Your task to perform on an android device: What's on my calendar tomorrow? Image 0: 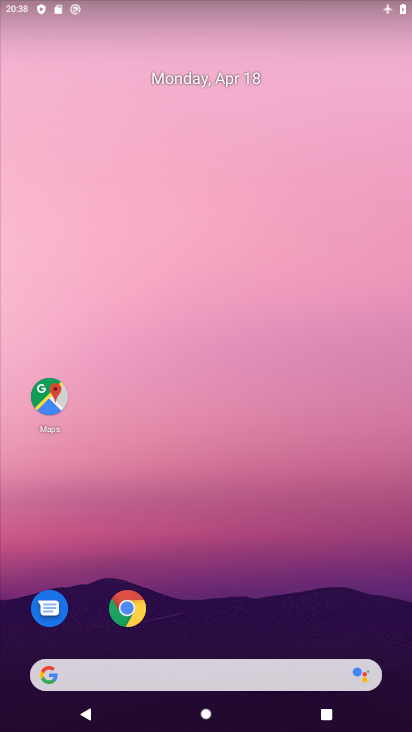
Step 0: drag from (269, 528) to (304, 113)
Your task to perform on an android device: What's on my calendar tomorrow? Image 1: 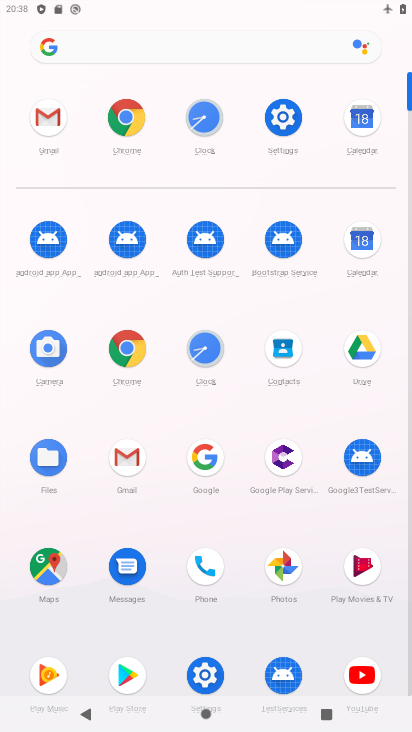
Step 1: click (362, 242)
Your task to perform on an android device: What's on my calendar tomorrow? Image 2: 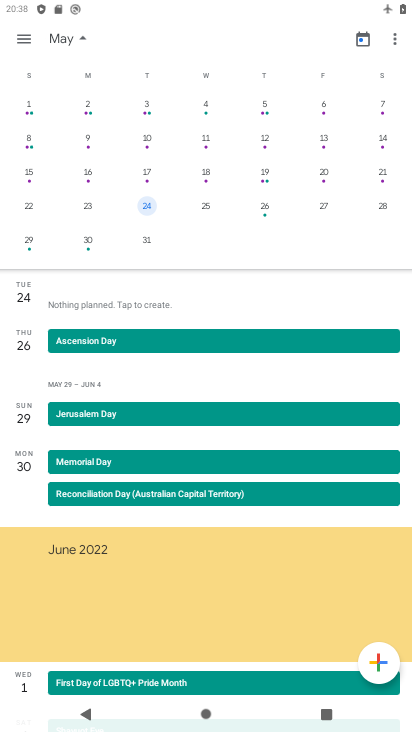
Step 2: click (81, 37)
Your task to perform on an android device: What's on my calendar tomorrow? Image 3: 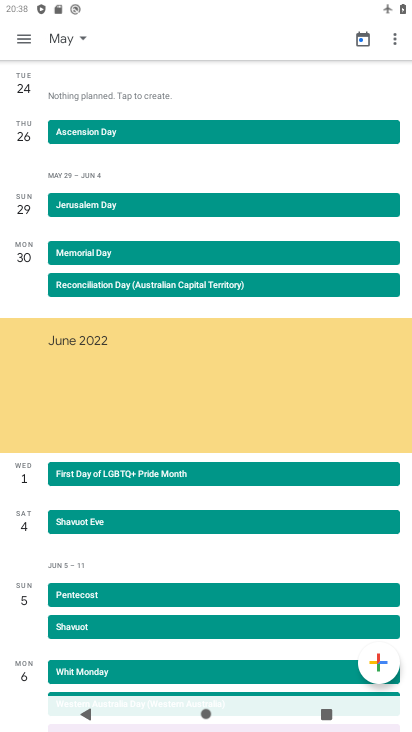
Step 3: click (79, 40)
Your task to perform on an android device: What's on my calendar tomorrow? Image 4: 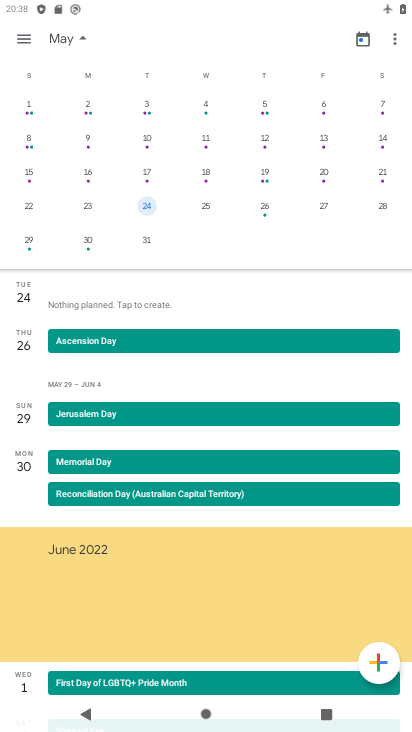
Step 4: drag from (51, 222) to (388, 201)
Your task to perform on an android device: What's on my calendar tomorrow? Image 5: 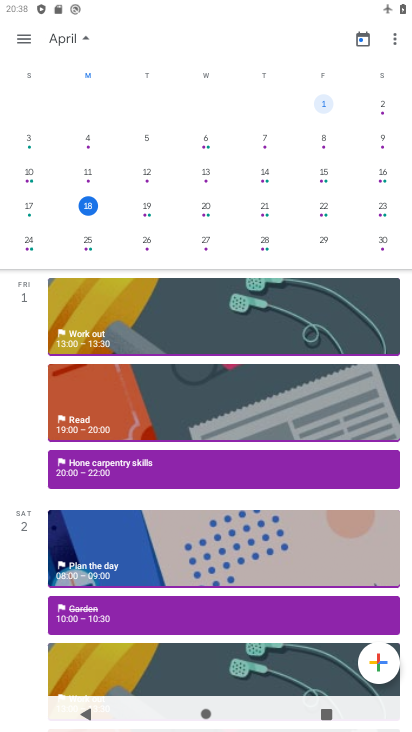
Step 5: click (146, 204)
Your task to perform on an android device: What's on my calendar tomorrow? Image 6: 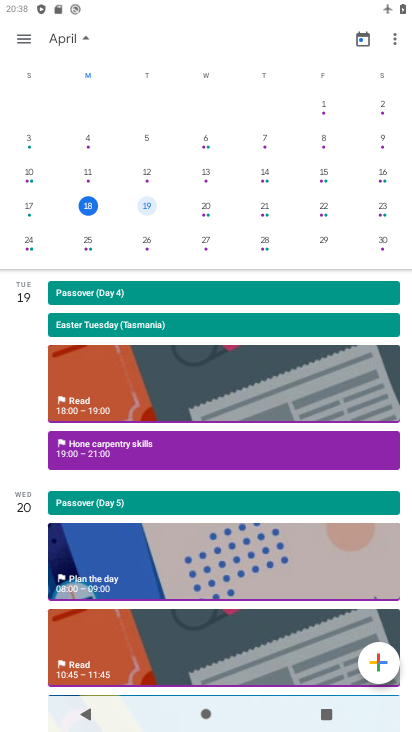
Step 6: task complete